Your task to perform on an android device: Search for usb-a on bestbuy, select the first entry, add it to the cart, then select checkout. Image 0: 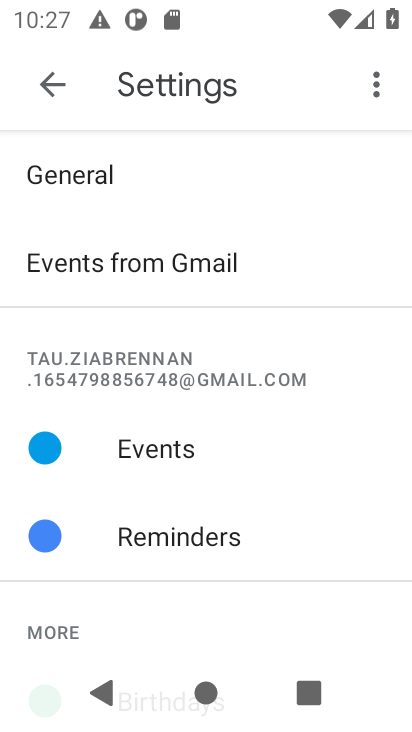
Step 0: press home button
Your task to perform on an android device: Search for usb-a on bestbuy, select the first entry, add it to the cart, then select checkout. Image 1: 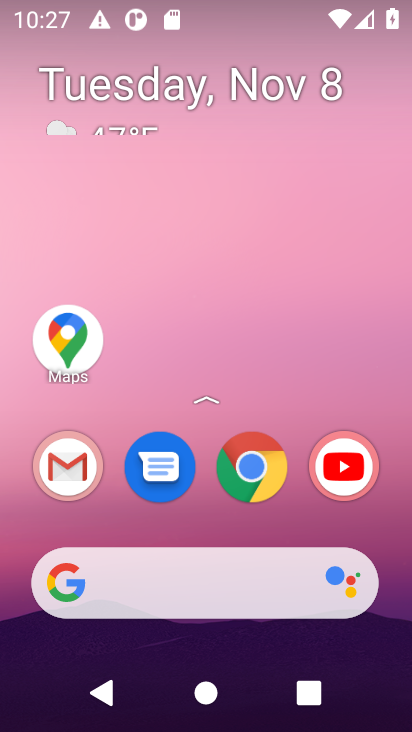
Step 1: click (226, 583)
Your task to perform on an android device: Search for usb-a on bestbuy, select the first entry, add it to the cart, then select checkout. Image 2: 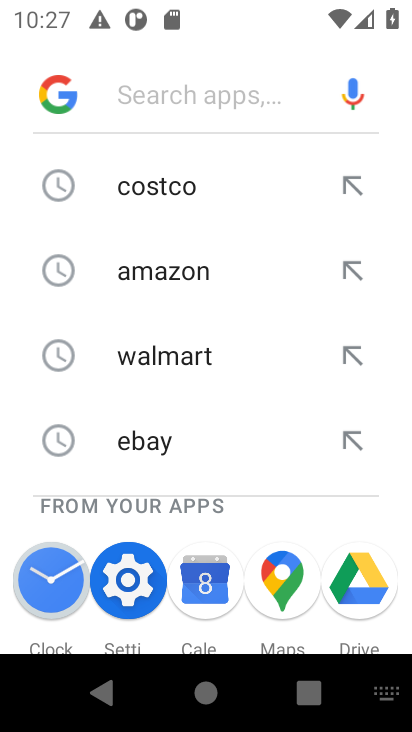
Step 2: type "bestbuy"
Your task to perform on an android device: Search for usb-a on bestbuy, select the first entry, add it to the cart, then select checkout. Image 3: 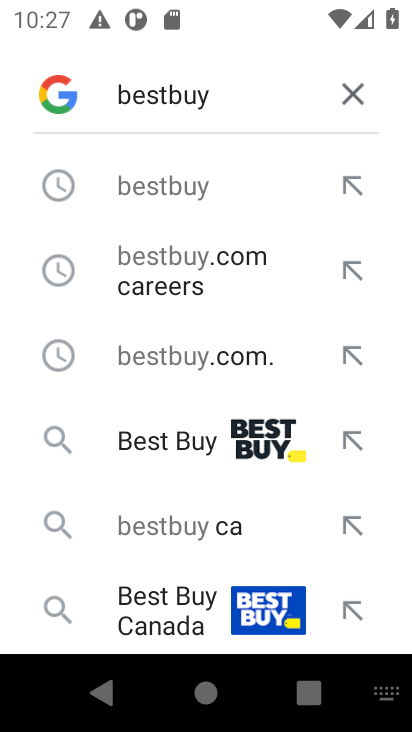
Step 3: click (163, 433)
Your task to perform on an android device: Search for usb-a on bestbuy, select the first entry, add it to the cart, then select checkout. Image 4: 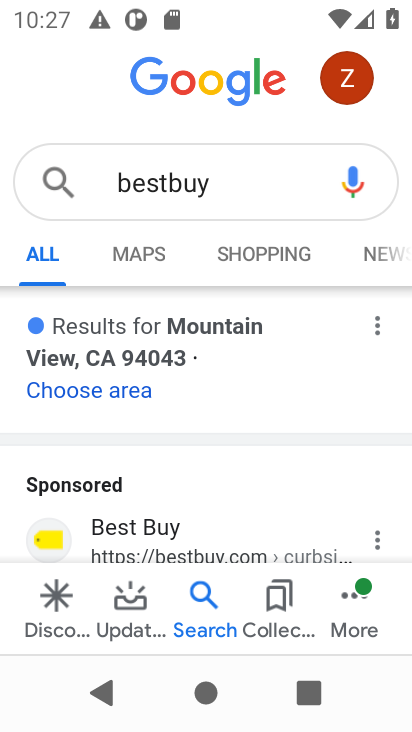
Step 4: click (117, 521)
Your task to perform on an android device: Search for usb-a on bestbuy, select the first entry, add it to the cart, then select checkout. Image 5: 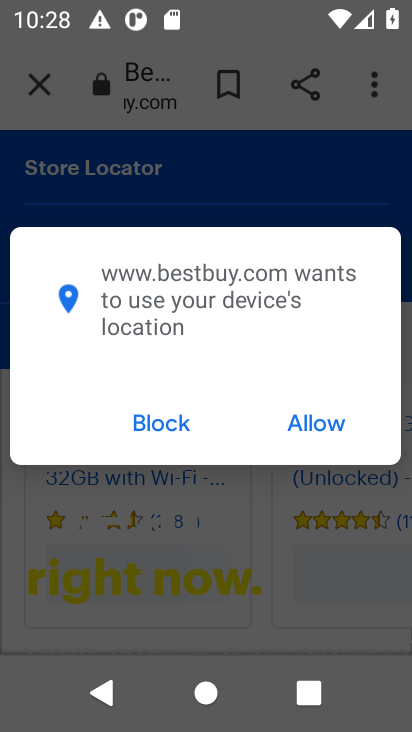
Step 5: click (155, 421)
Your task to perform on an android device: Search for usb-a on bestbuy, select the first entry, add it to the cart, then select checkout. Image 6: 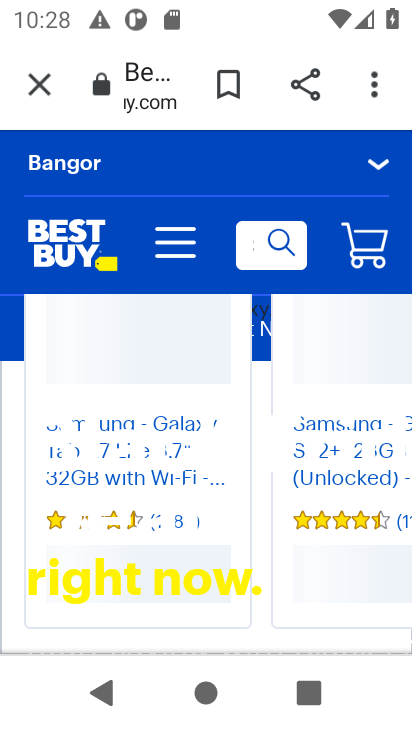
Step 6: task complete